Your task to perform on an android device: turn on bluetooth scan Image 0: 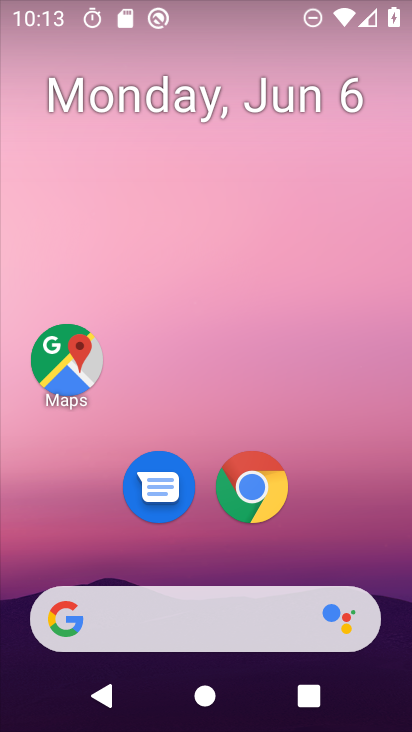
Step 0: drag from (398, 619) to (262, 45)
Your task to perform on an android device: turn on bluetooth scan Image 1: 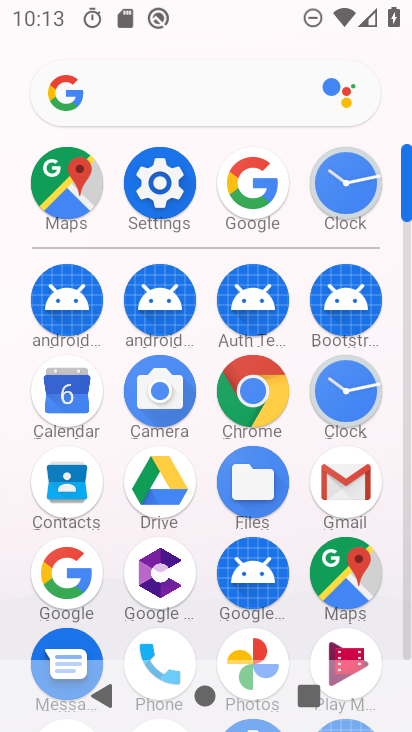
Step 1: click (160, 193)
Your task to perform on an android device: turn on bluetooth scan Image 2: 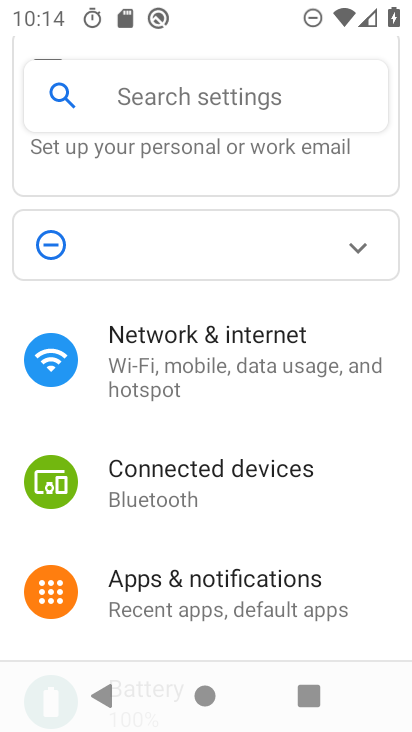
Step 2: drag from (242, 603) to (228, 76)
Your task to perform on an android device: turn on bluetooth scan Image 3: 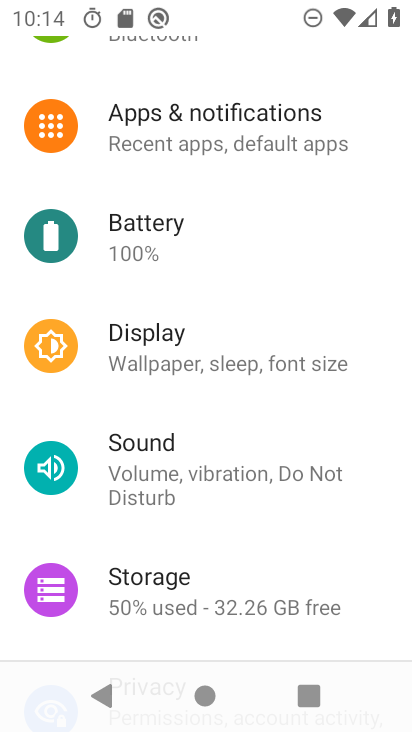
Step 3: drag from (174, 576) to (194, 100)
Your task to perform on an android device: turn on bluetooth scan Image 4: 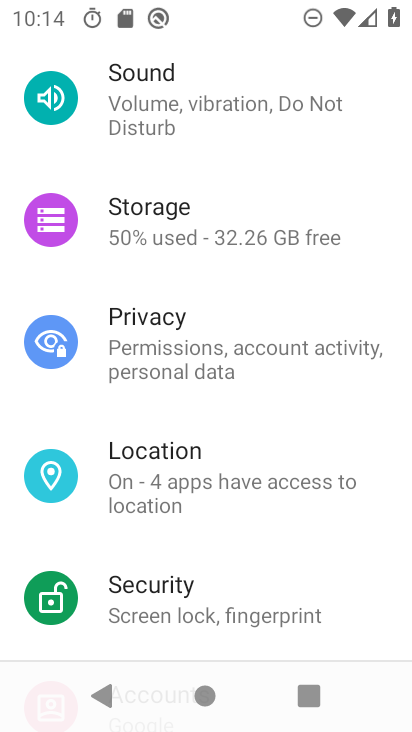
Step 4: click (199, 457)
Your task to perform on an android device: turn on bluetooth scan Image 5: 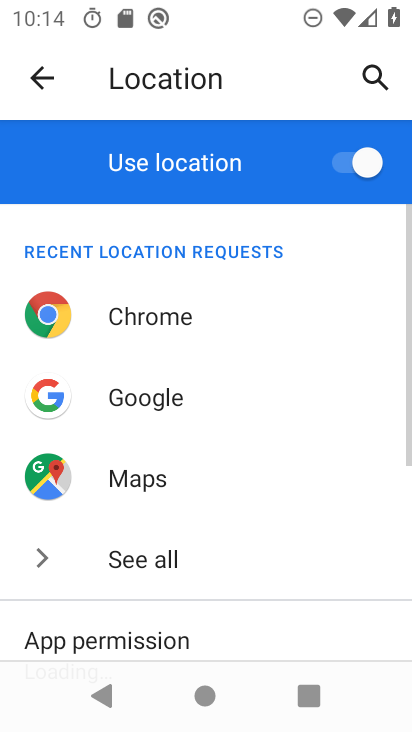
Step 5: drag from (187, 619) to (184, 170)
Your task to perform on an android device: turn on bluetooth scan Image 6: 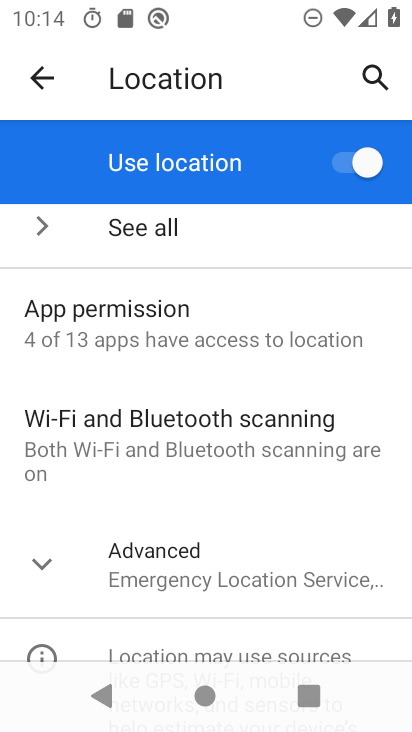
Step 6: click (191, 461)
Your task to perform on an android device: turn on bluetooth scan Image 7: 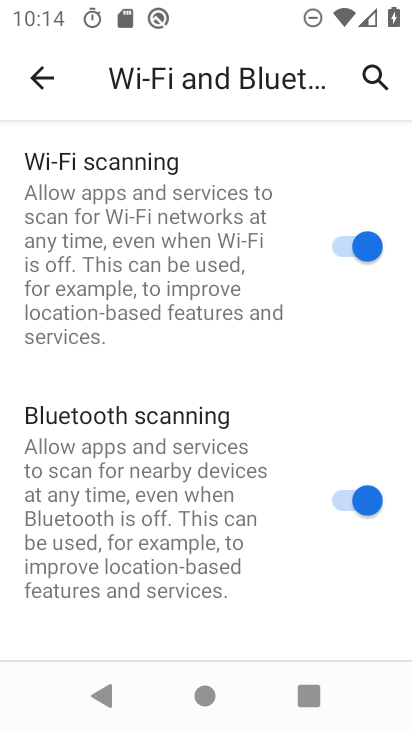
Step 7: task complete